Your task to perform on an android device: turn on location history Image 0: 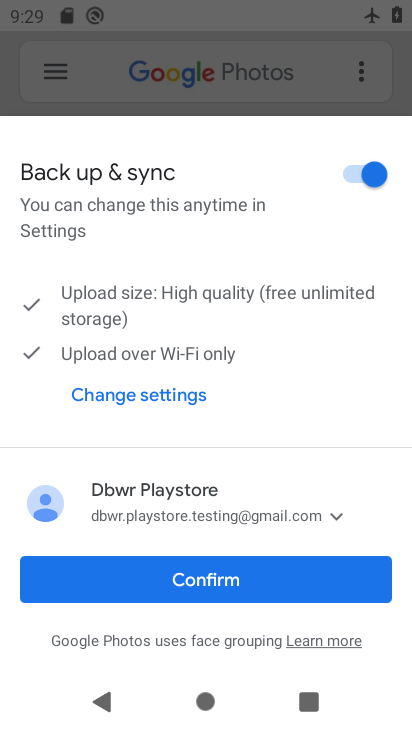
Step 0: press home button
Your task to perform on an android device: turn on location history Image 1: 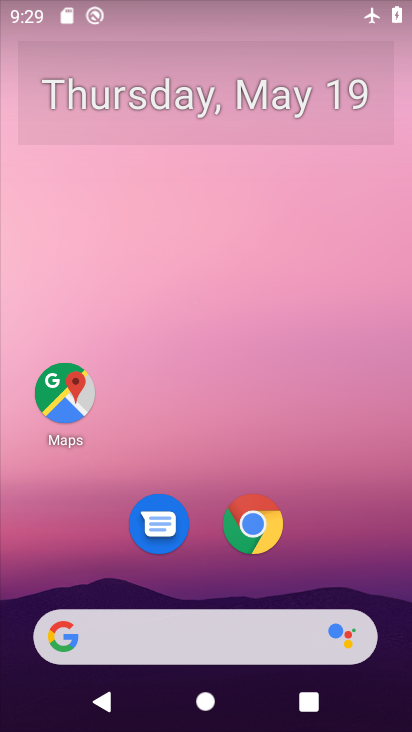
Step 1: drag from (250, 458) to (255, 69)
Your task to perform on an android device: turn on location history Image 2: 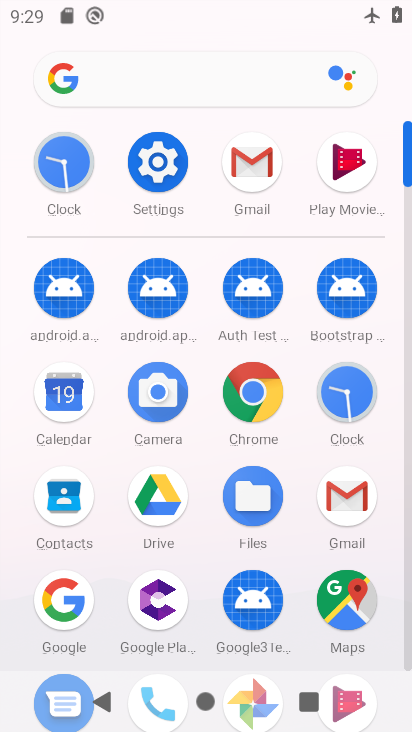
Step 2: click (179, 166)
Your task to perform on an android device: turn on location history Image 3: 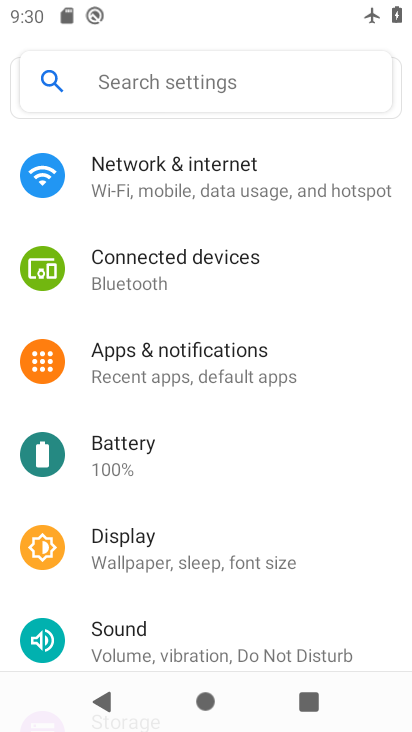
Step 3: drag from (220, 472) to (205, 136)
Your task to perform on an android device: turn on location history Image 4: 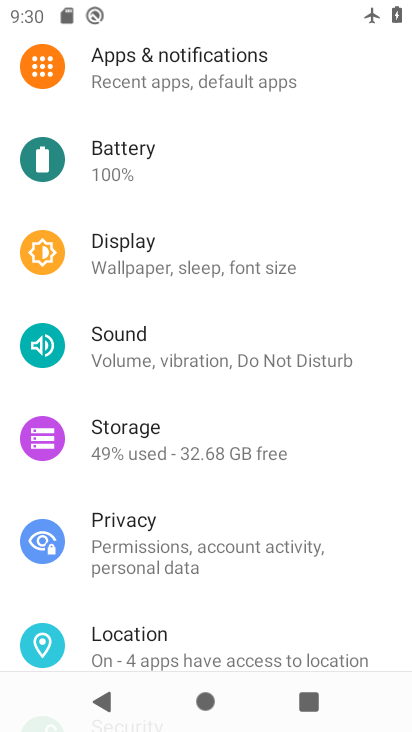
Step 4: click (217, 635)
Your task to perform on an android device: turn on location history Image 5: 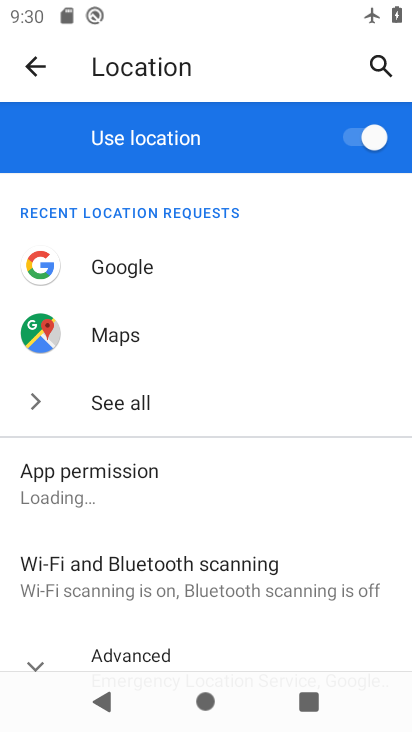
Step 5: drag from (231, 533) to (232, 144)
Your task to perform on an android device: turn on location history Image 6: 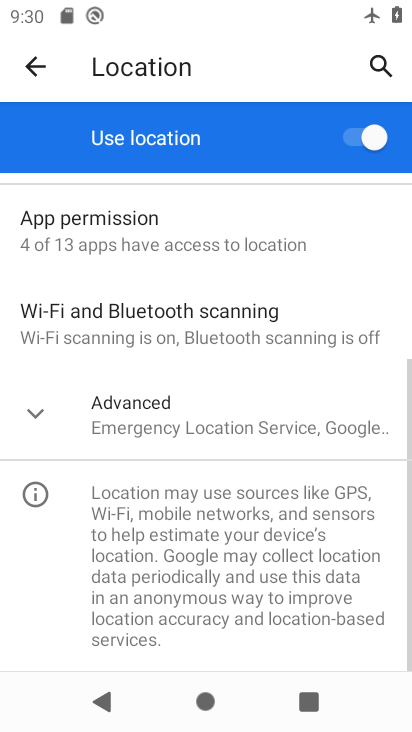
Step 6: click (31, 415)
Your task to perform on an android device: turn on location history Image 7: 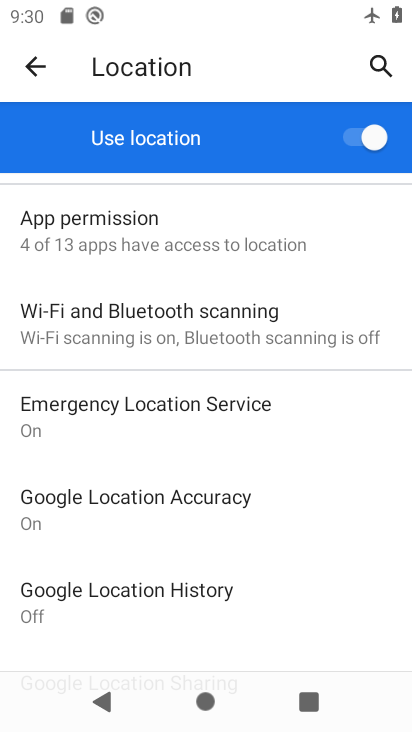
Step 7: click (186, 614)
Your task to perform on an android device: turn on location history Image 8: 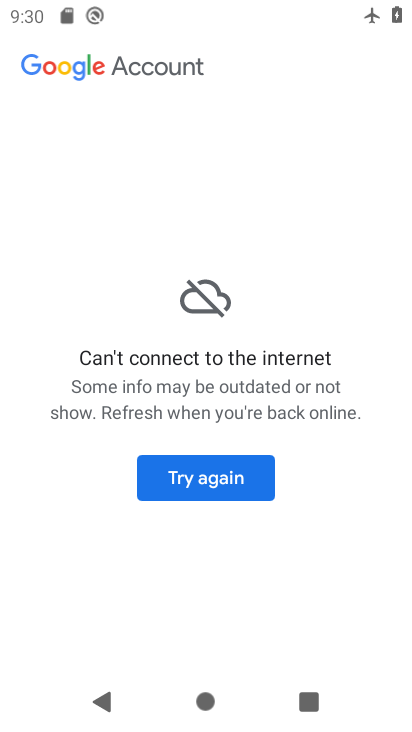
Step 8: click (220, 465)
Your task to perform on an android device: turn on location history Image 9: 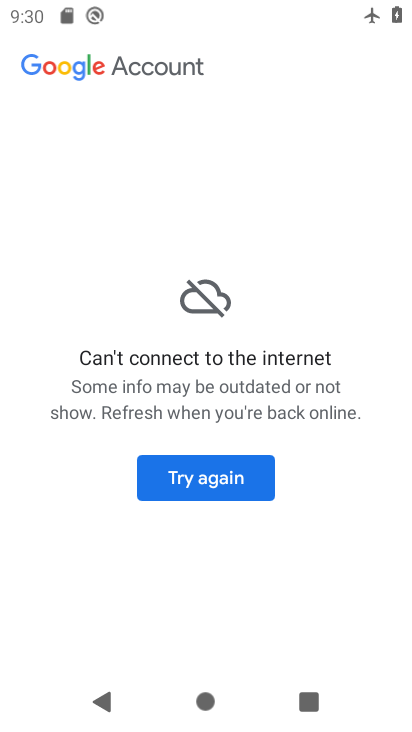
Step 9: click (230, 484)
Your task to perform on an android device: turn on location history Image 10: 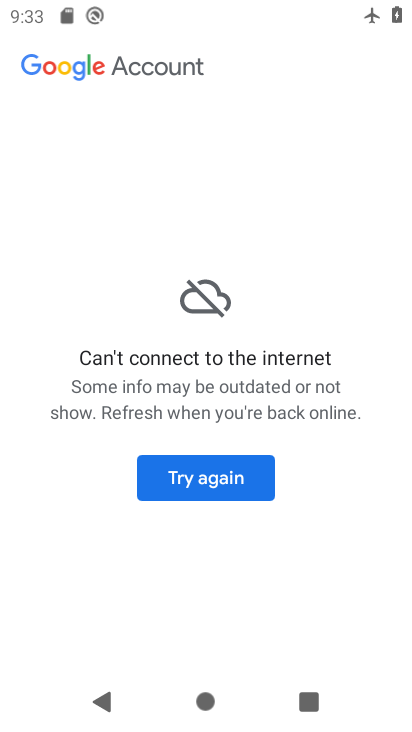
Step 10: task complete